Your task to perform on an android device: Open Amazon Image 0: 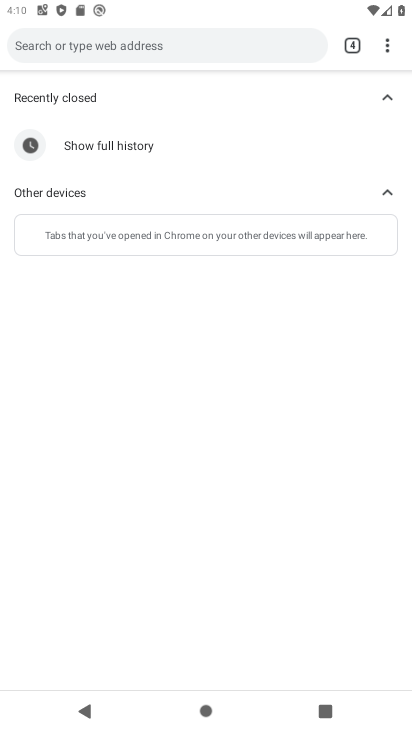
Step 0: press home button
Your task to perform on an android device: Open Amazon Image 1: 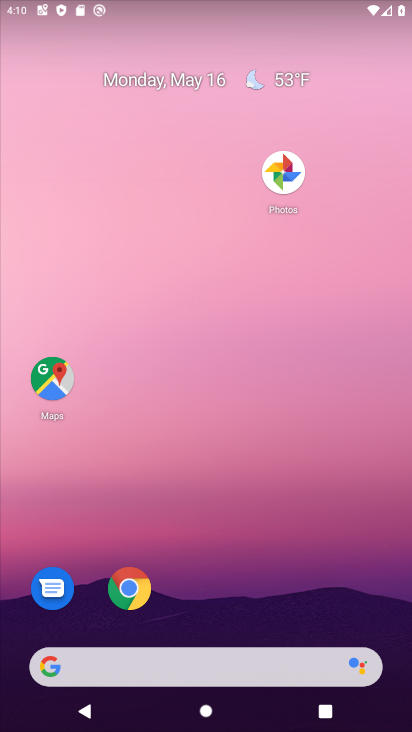
Step 1: click (137, 586)
Your task to perform on an android device: Open Amazon Image 2: 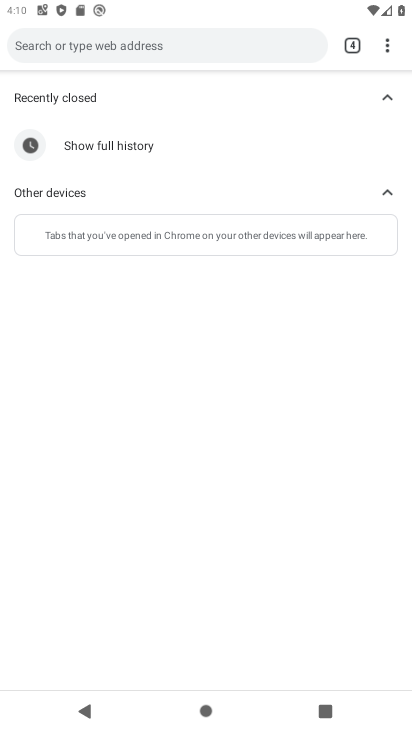
Step 2: click (363, 53)
Your task to perform on an android device: Open Amazon Image 3: 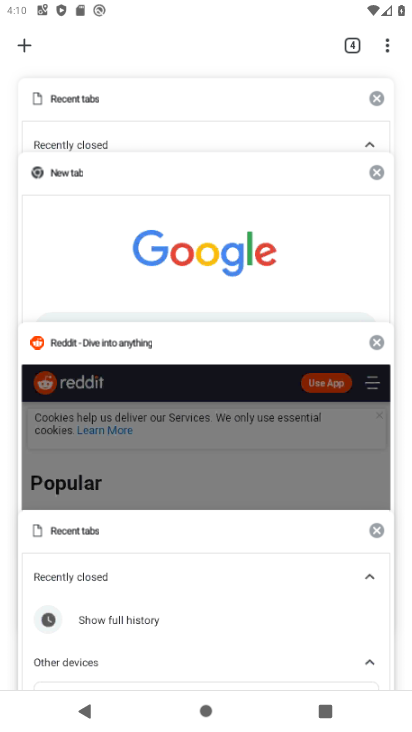
Step 3: click (40, 42)
Your task to perform on an android device: Open Amazon Image 4: 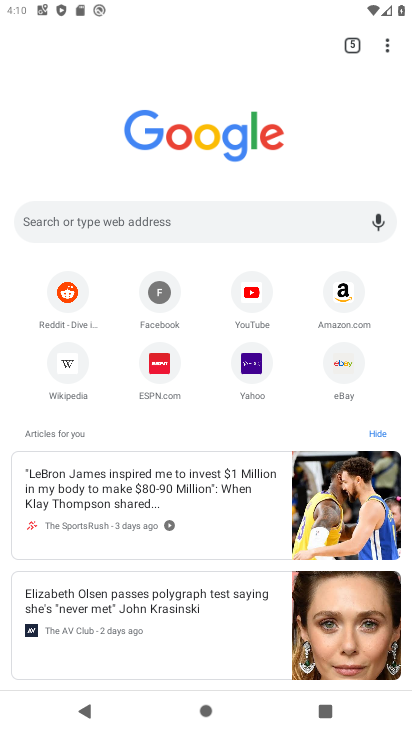
Step 4: click (356, 281)
Your task to perform on an android device: Open Amazon Image 5: 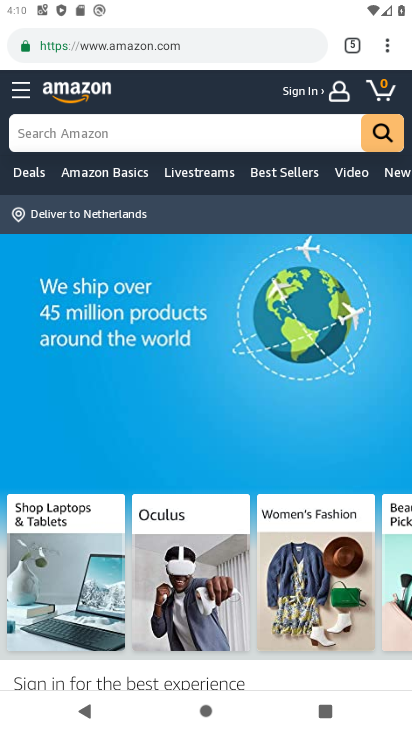
Step 5: task complete